Your task to perform on an android device: When is my next appointment? Image 0: 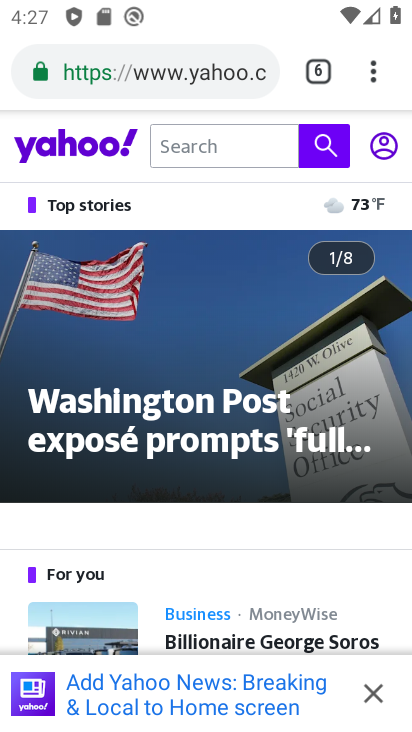
Step 0: press home button
Your task to perform on an android device: When is my next appointment? Image 1: 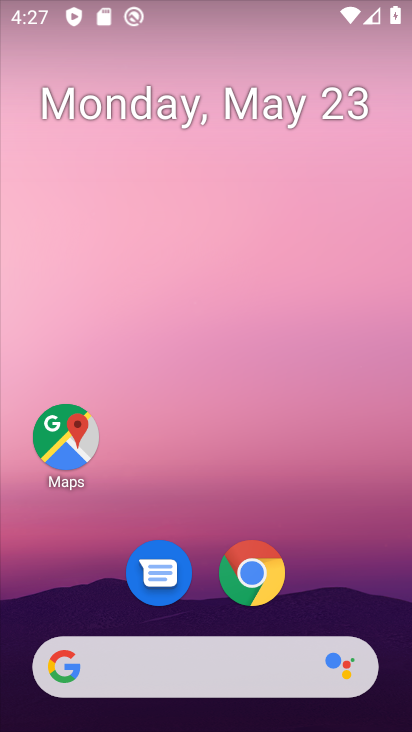
Step 1: drag from (226, 698) to (135, 0)
Your task to perform on an android device: When is my next appointment? Image 2: 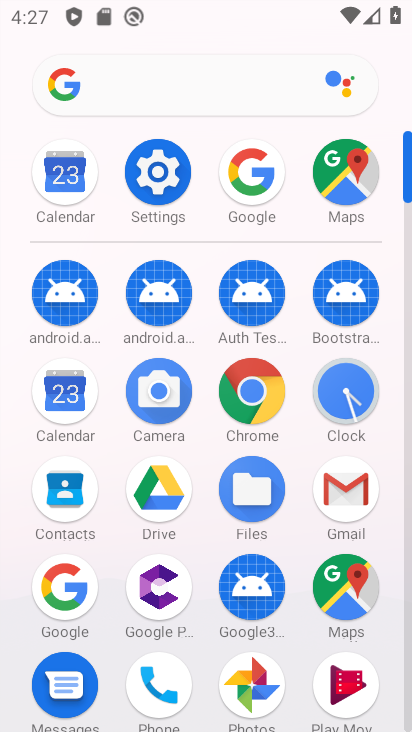
Step 2: click (62, 393)
Your task to perform on an android device: When is my next appointment? Image 3: 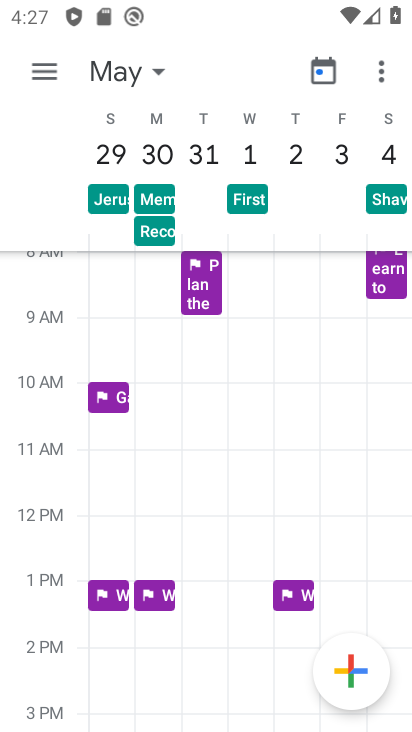
Step 3: click (156, 70)
Your task to perform on an android device: When is my next appointment? Image 4: 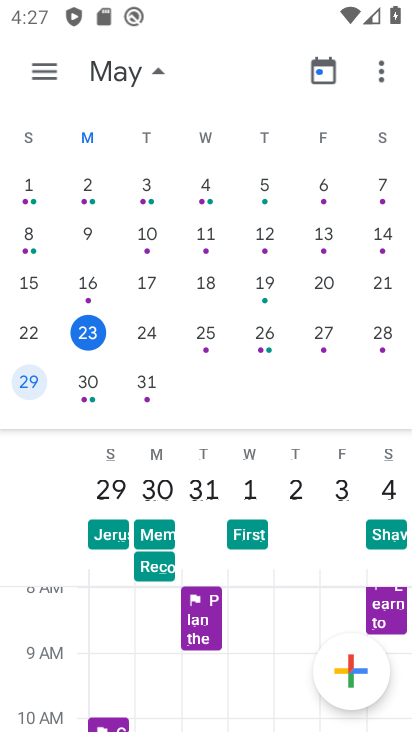
Step 4: click (144, 329)
Your task to perform on an android device: When is my next appointment? Image 5: 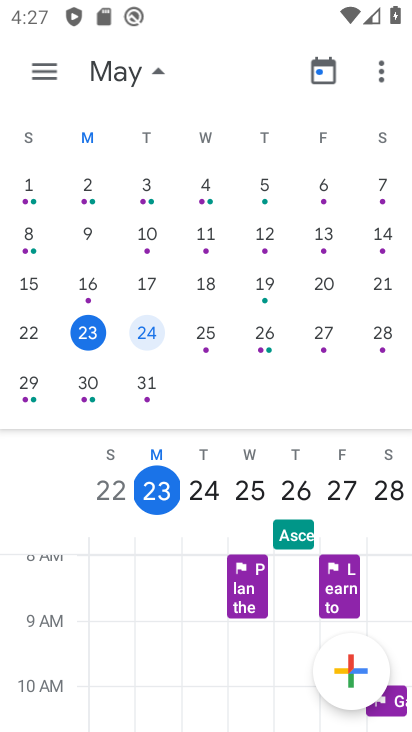
Step 5: click (155, 472)
Your task to perform on an android device: When is my next appointment? Image 6: 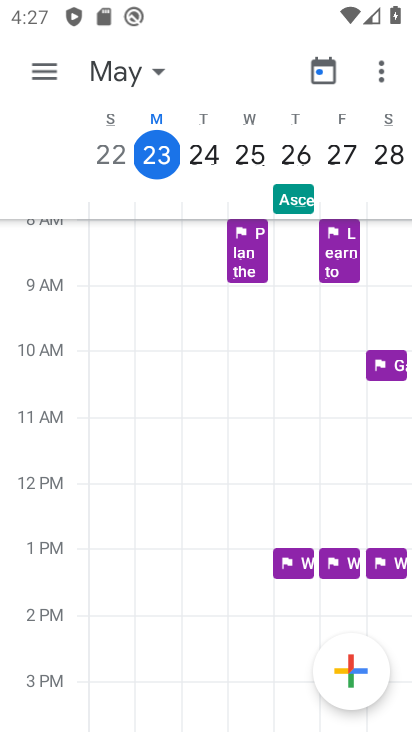
Step 6: task complete